Your task to perform on an android device: check storage Image 0: 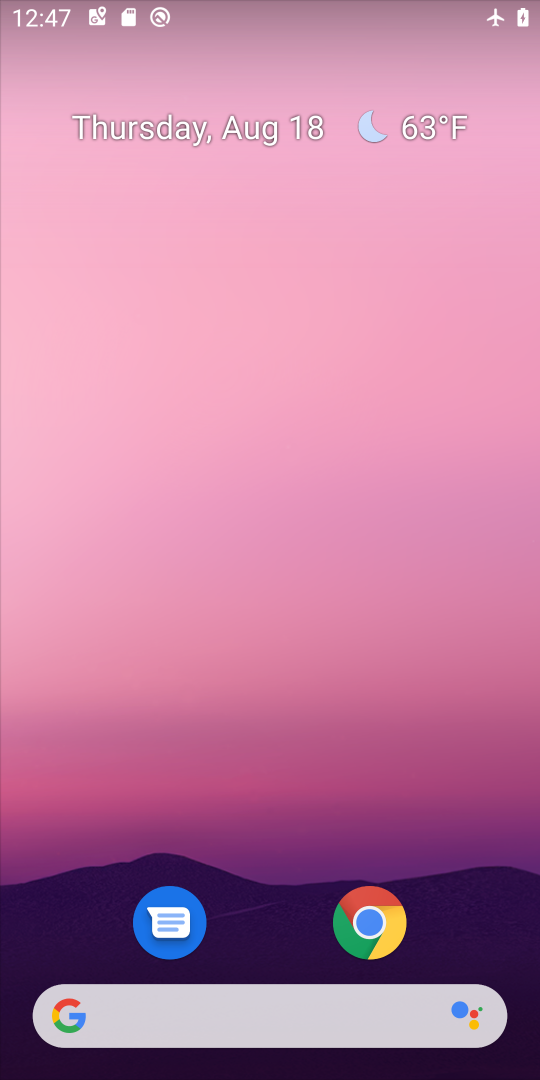
Step 0: drag from (259, 912) to (237, 310)
Your task to perform on an android device: check storage Image 1: 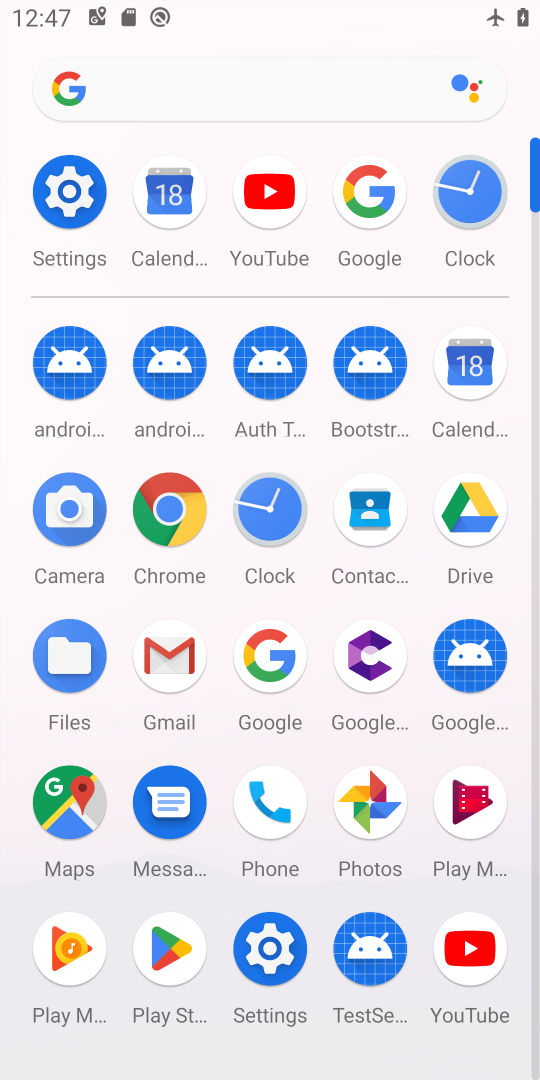
Step 1: click (75, 189)
Your task to perform on an android device: check storage Image 2: 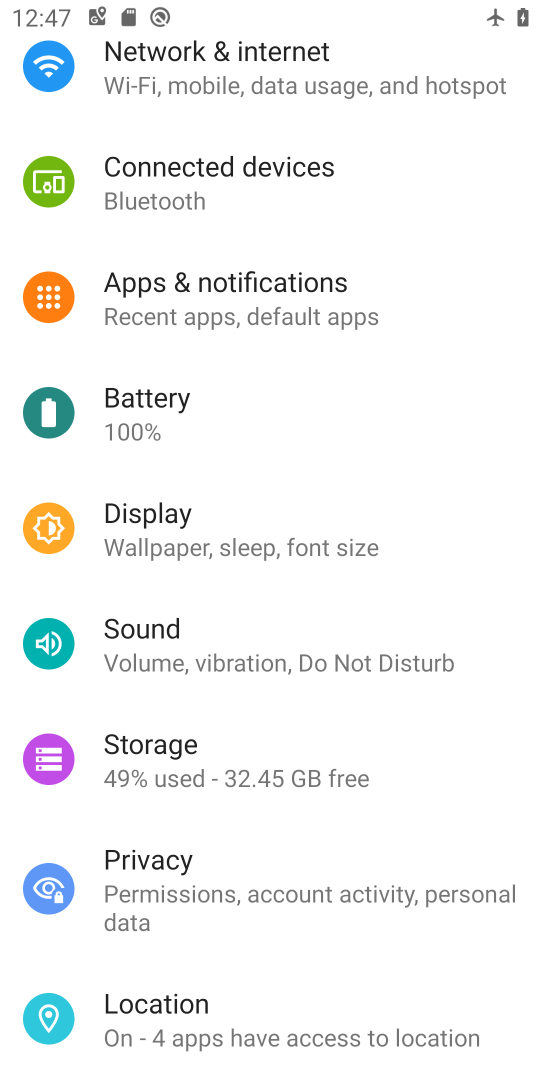
Step 2: click (167, 742)
Your task to perform on an android device: check storage Image 3: 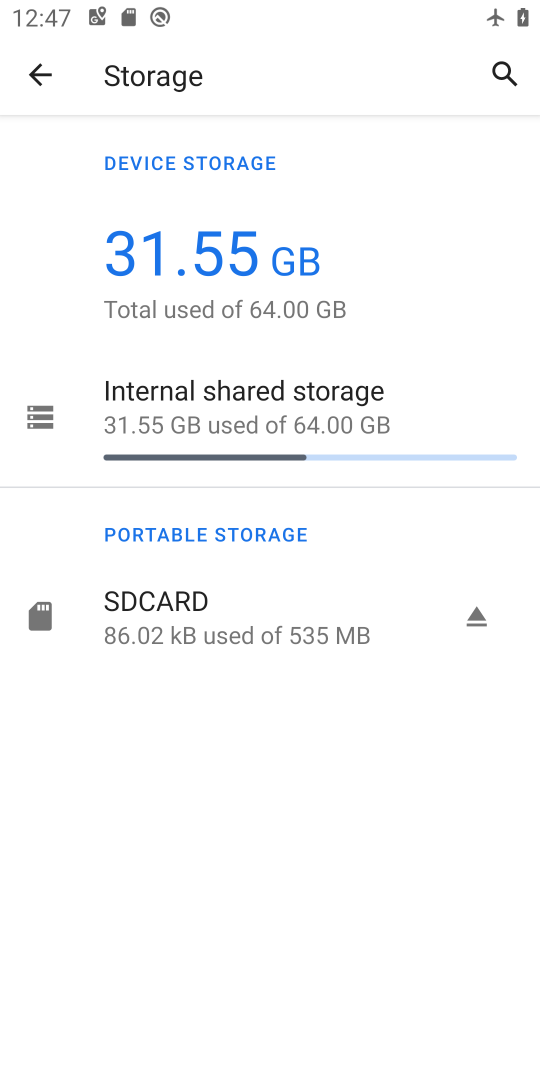
Step 3: task complete